Your task to perform on an android device: Open Chrome and go to settings Image 0: 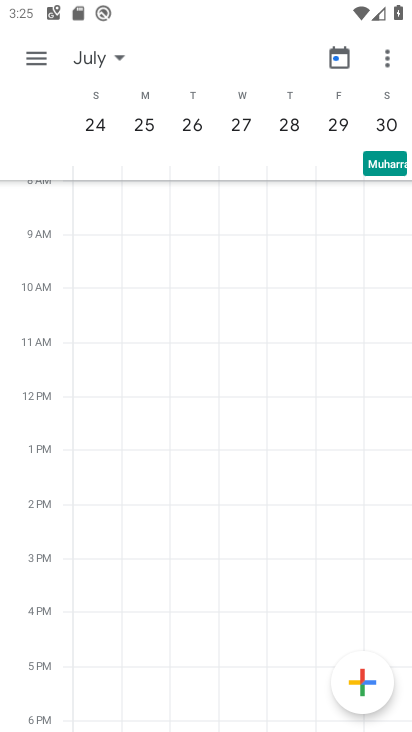
Step 0: press home button
Your task to perform on an android device: Open Chrome and go to settings Image 1: 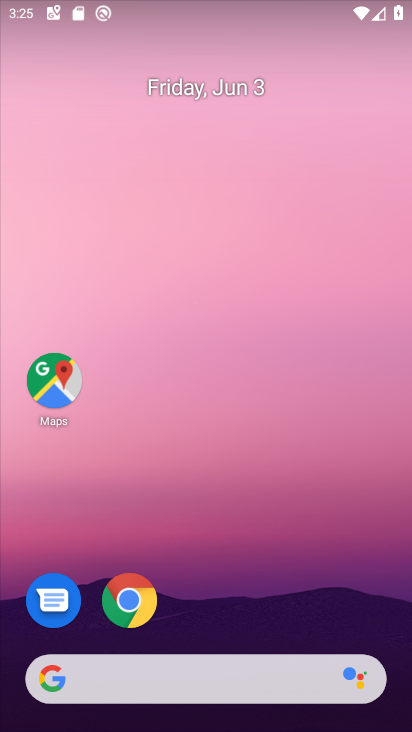
Step 1: click (134, 596)
Your task to perform on an android device: Open Chrome and go to settings Image 2: 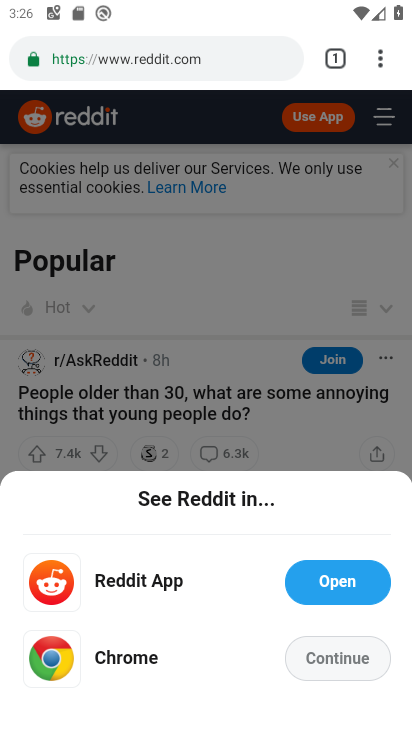
Step 2: task complete